Your task to perform on an android device: Do I have any events tomorrow? Image 0: 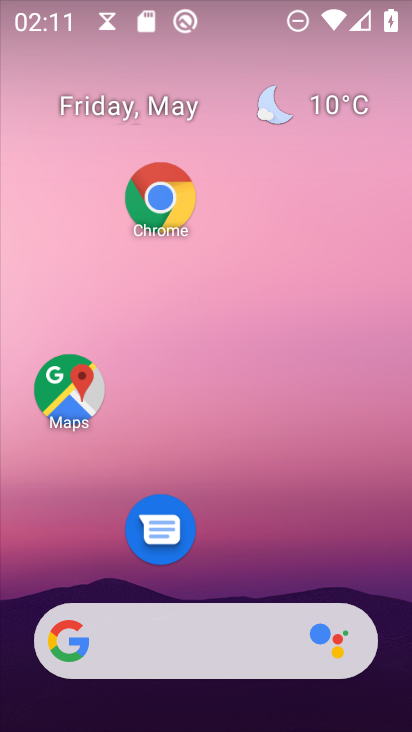
Step 0: drag from (218, 545) to (285, 122)
Your task to perform on an android device: Do I have any events tomorrow? Image 1: 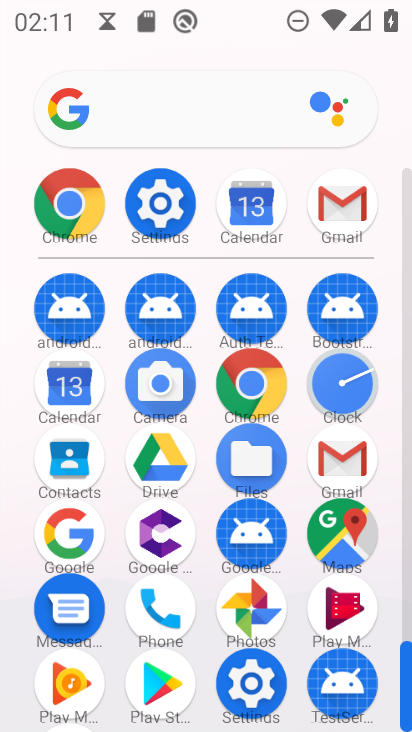
Step 1: click (57, 390)
Your task to perform on an android device: Do I have any events tomorrow? Image 2: 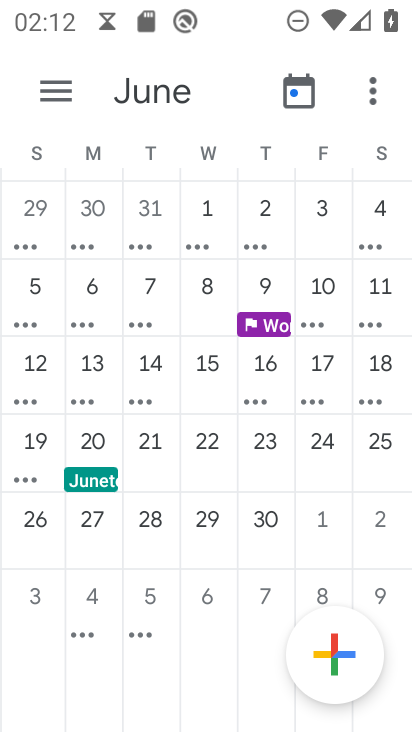
Step 2: drag from (50, 276) to (381, 346)
Your task to perform on an android device: Do I have any events tomorrow? Image 3: 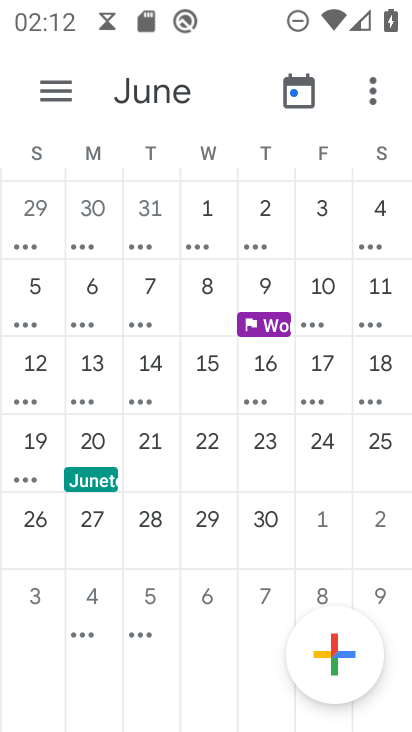
Step 3: drag from (48, 296) to (395, 368)
Your task to perform on an android device: Do I have any events tomorrow? Image 4: 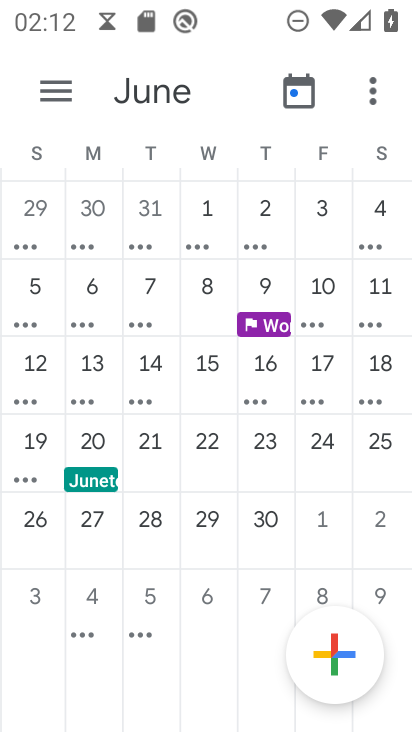
Step 4: drag from (25, 294) to (373, 386)
Your task to perform on an android device: Do I have any events tomorrow? Image 5: 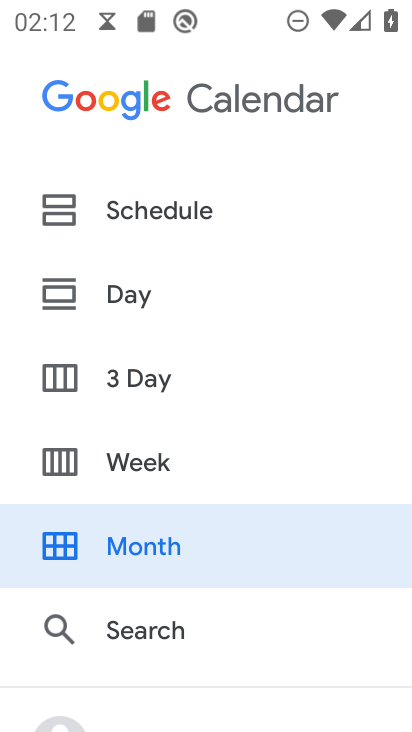
Step 5: drag from (341, 346) to (37, 361)
Your task to perform on an android device: Do I have any events tomorrow? Image 6: 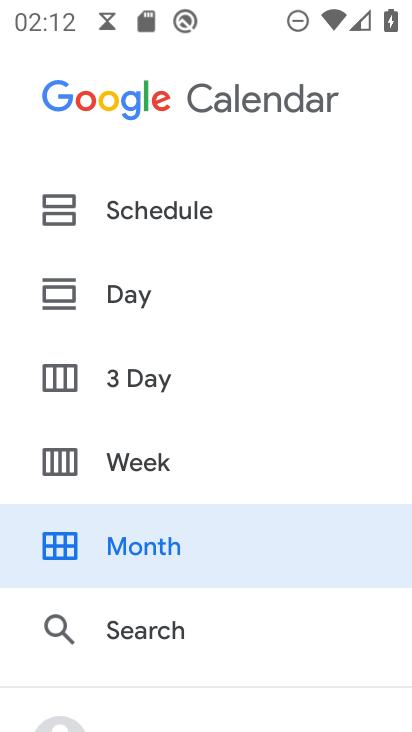
Step 6: click (255, 558)
Your task to perform on an android device: Do I have any events tomorrow? Image 7: 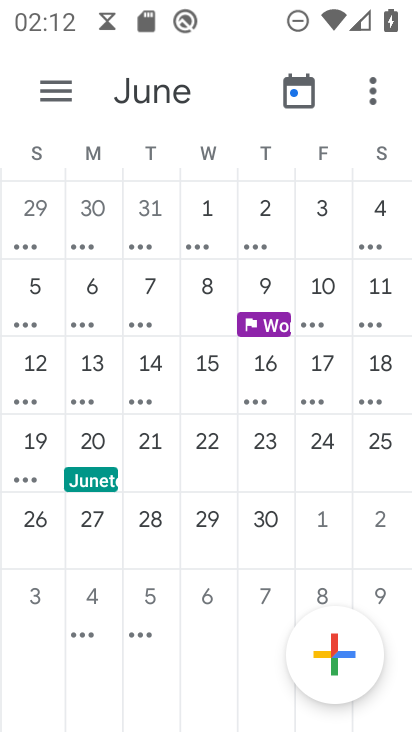
Step 7: drag from (47, 333) to (398, 374)
Your task to perform on an android device: Do I have any events tomorrow? Image 8: 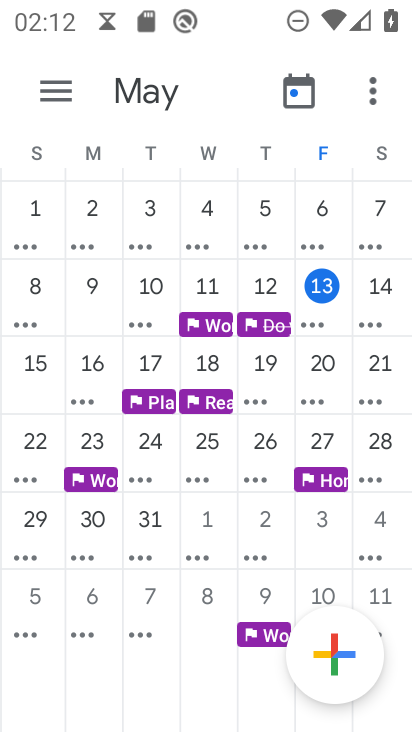
Step 8: click (391, 293)
Your task to perform on an android device: Do I have any events tomorrow? Image 9: 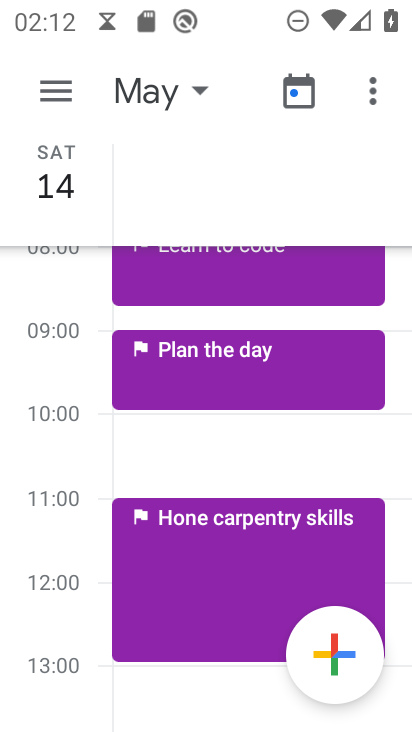
Step 9: task complete